Your task to perform on an android device: check out phone information Image 0: 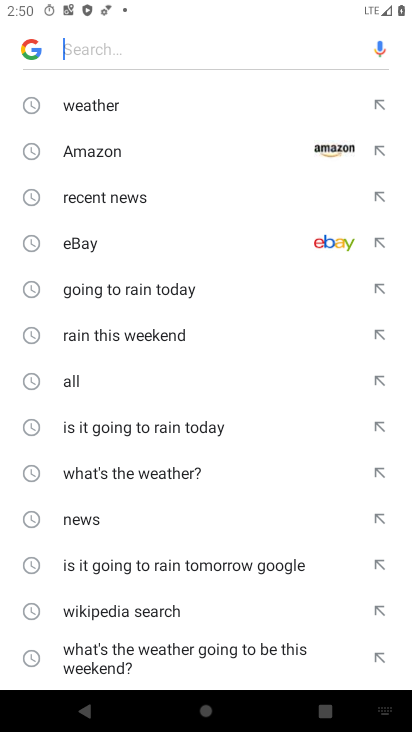
Step 0: press home button
Your task to perform on an android device: check out phone information Image 1: 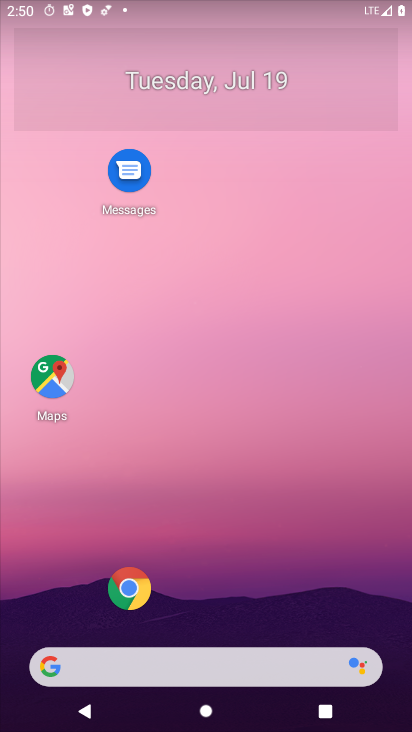
Step 1: drag from (44, 678) to (189, 125)
Your task to perform on an android device: check out phone information Image 2: 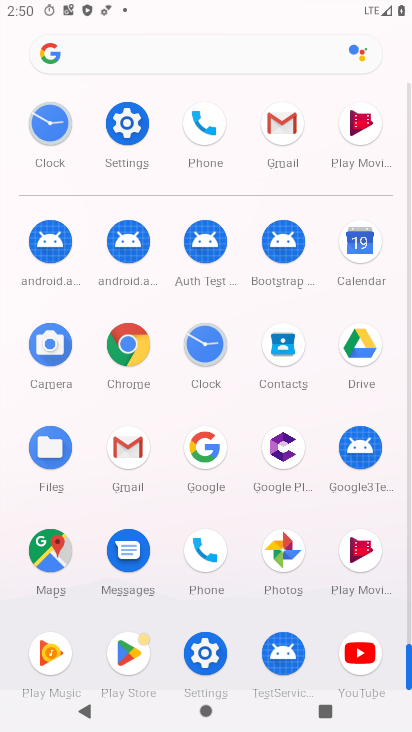
Step 2: click (214, 562)
Your task to perform on an android device: check out phone information Image 3: 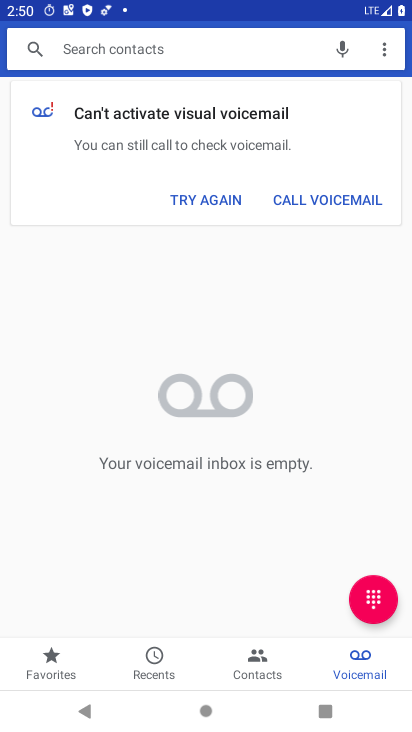
Step 3: click (150, 674)
Your task to perform on an android device: check out phone information Image 4: 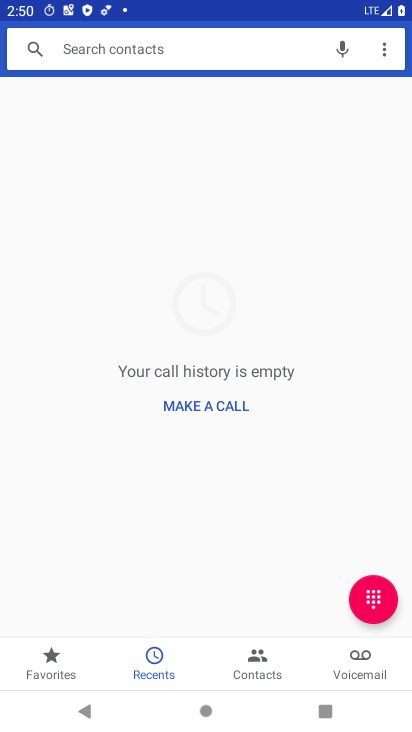
Step 4: click (271, 667)
Your task to perform on an android device: check out phone information Image 5: 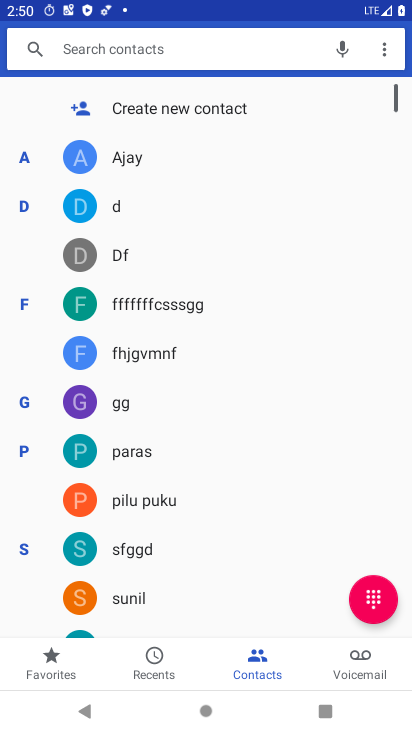
Step 5: task complete